Your task to perform on an android device: change the clock display to analog Image 0: 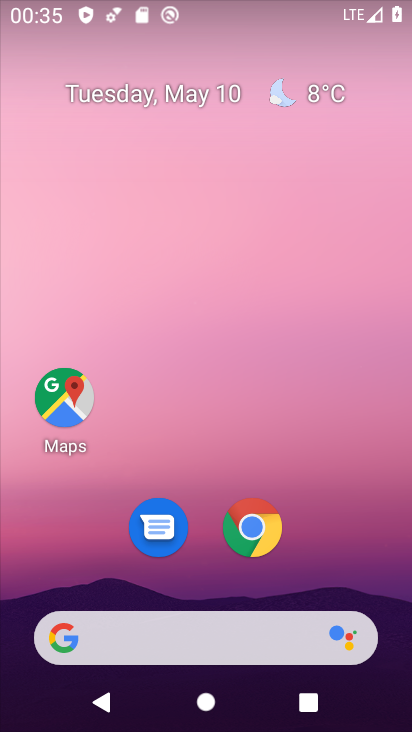
Step 0: drag from (363, 490) to (90, 149)
Your task to perform on an android device: change the clock display to analog Image 1: 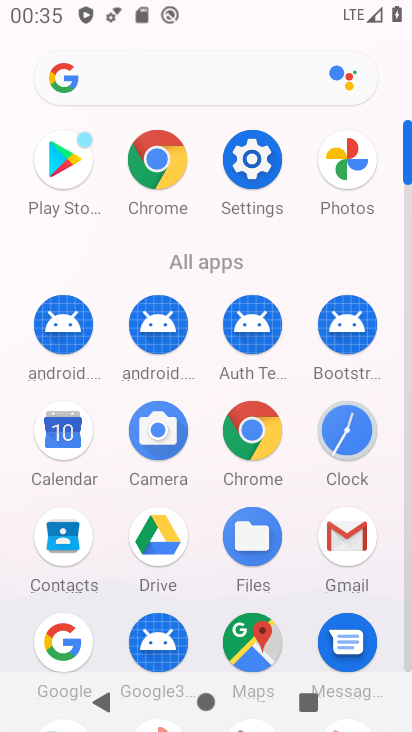
Step 1: click (341, 424)
Your task to perform on an android device: change the clock display to analog Image 2: 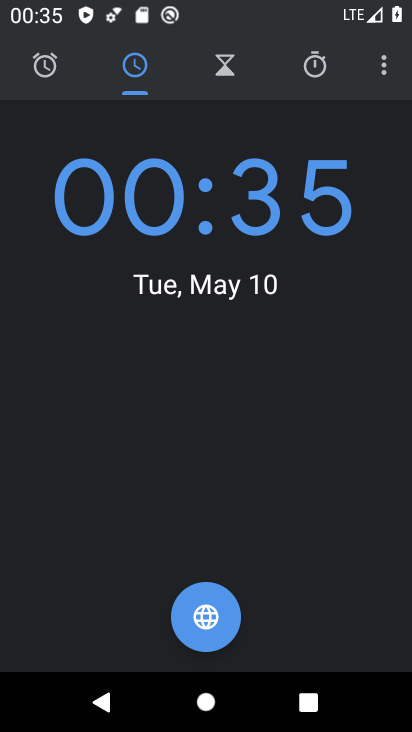
Step 2: click (381, 73)
Your task to perform on an android device: change the clock display to analog Image 3: 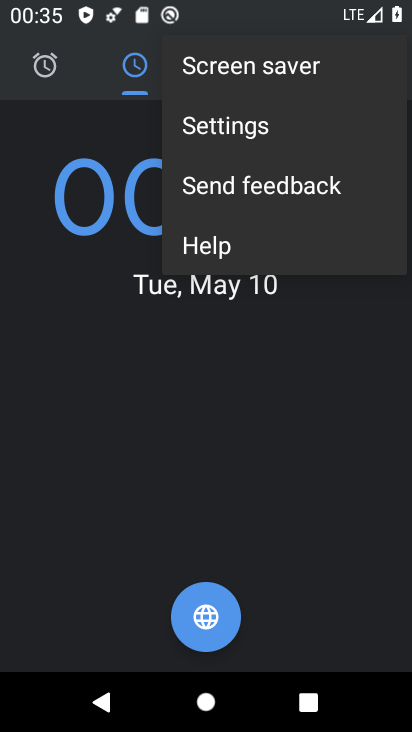
Step 3: click (251, 126)
Your task to perform on an android device: change the clock display to analog Image 4: 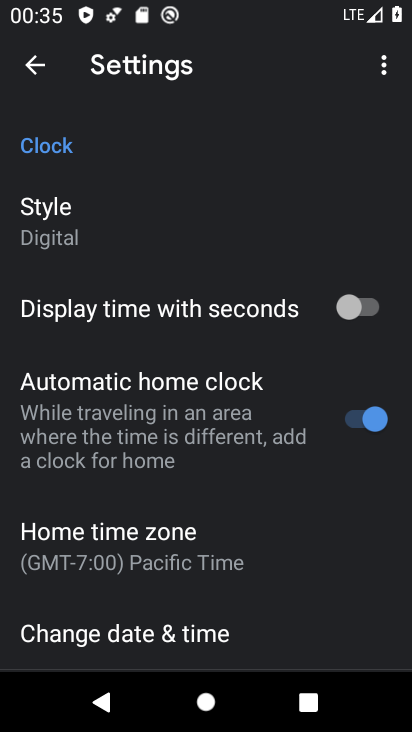
Step 4: click (59, 222)
Your task to perform on an android device: change the clock display to analog Image 5: 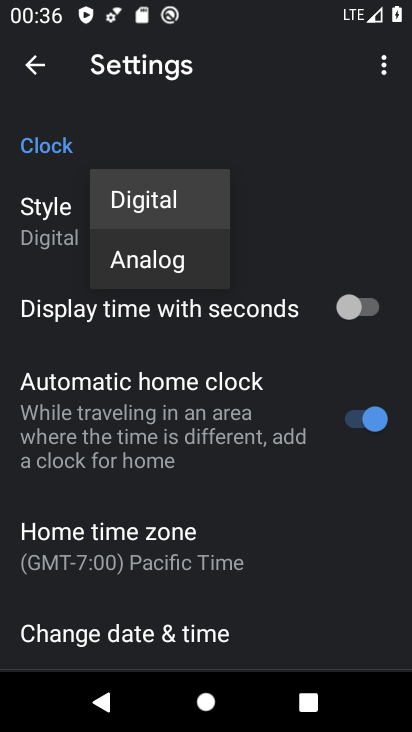
Step 5: click (168, 264)
Your task to perform on an android device: change the clock display to analog Image 6: 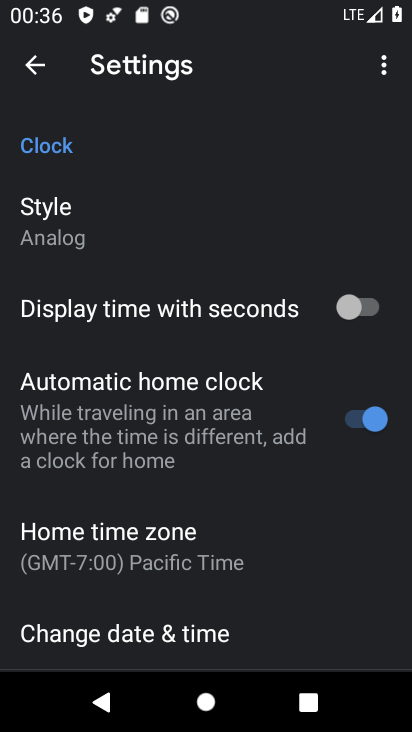
Step 6: task complete